Your task to perform on an android device: Open the map Image 0: 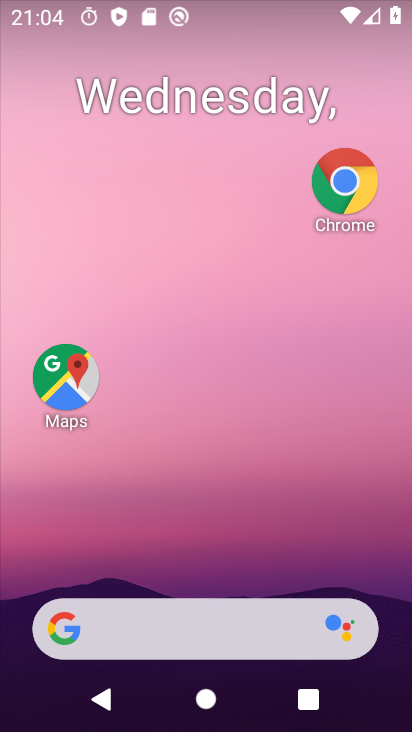
Step 0: drag from (256, 658) to (315, 371)
Your task to perform on an android device: Open the map Image 1: 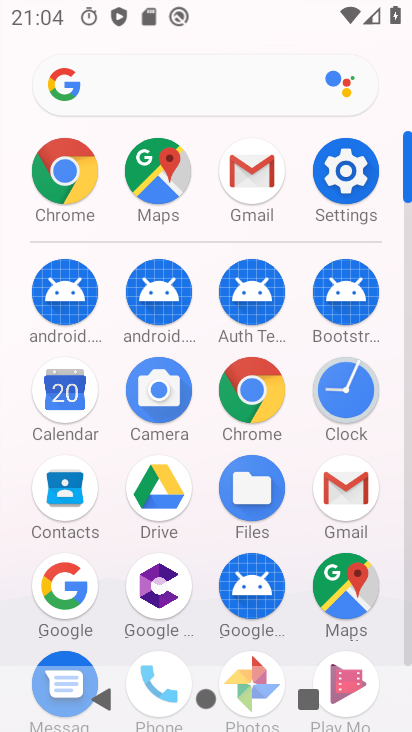
Step 1: click (159, 192)
Your task to perform on an android device: Open the map Image 2: 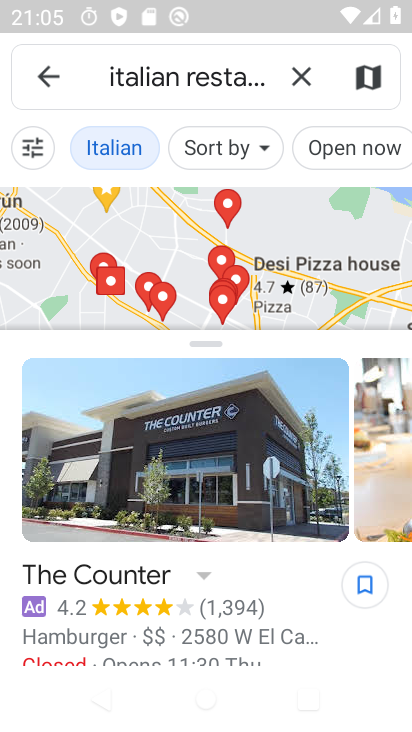
Step 2: click (56, 82)
Your task to perform on an android device: Open the map Image 3: 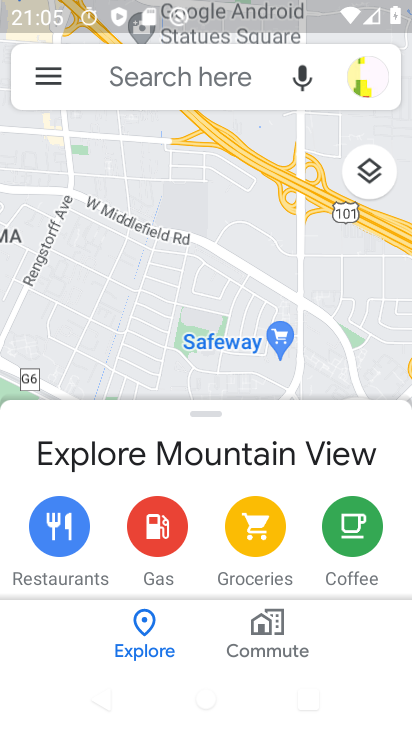
Step 3: click (202, 279)
Your task to perform on an android device: Open the map Image 4: 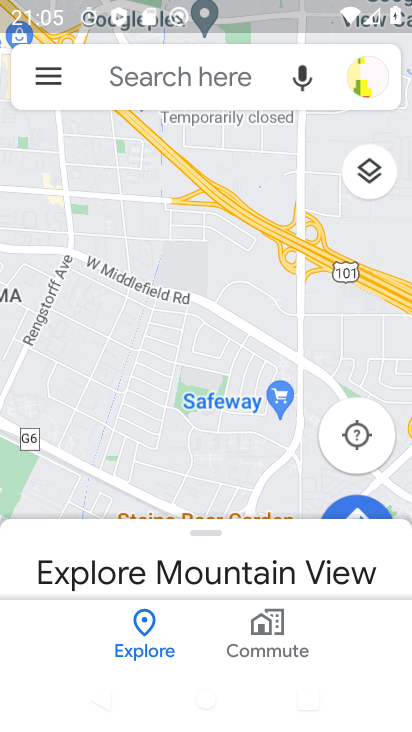
Step 4: task complete